Your task to perform on an android device: choose inbox layout in the gmail app Image 0: 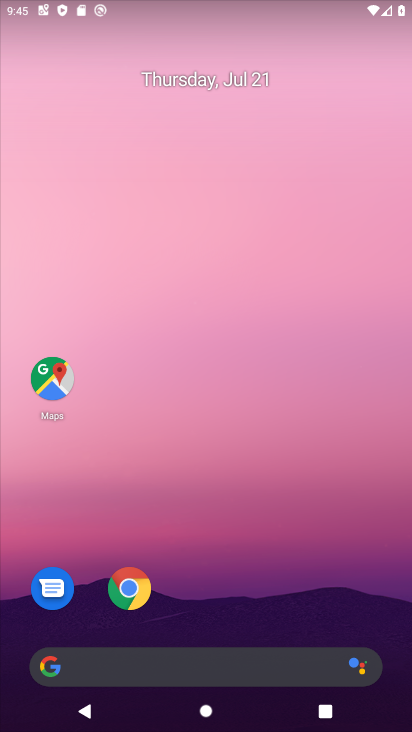
Step 0: drag from (397, 696) to (311, 133)
Your task to perform on an android device: choose inbox layout in the gmail app Image 1: 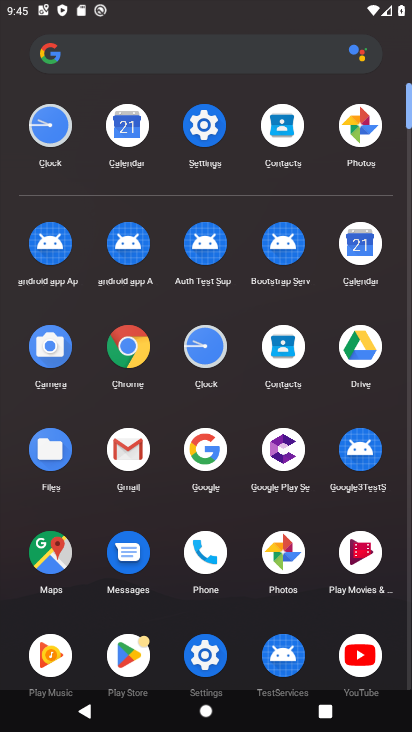
Step 1: click (137, 452)
Your task to perform on an android device: choose inbox layout in the gmail app Image 2: 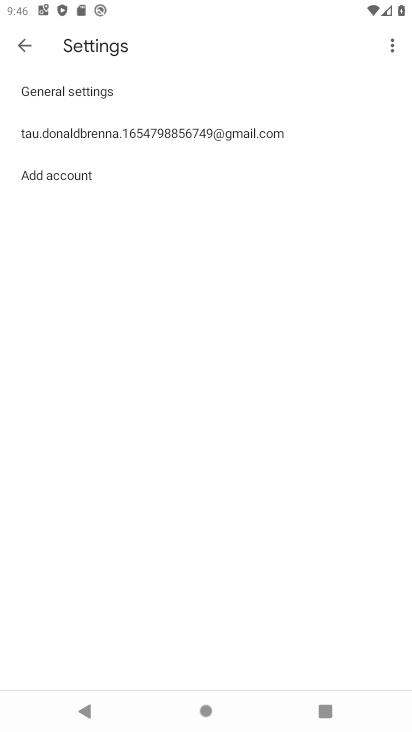
Step 2: click (139, 132)
Your task to perform on an android device: choose inbox layout in the gmail app Image 3: 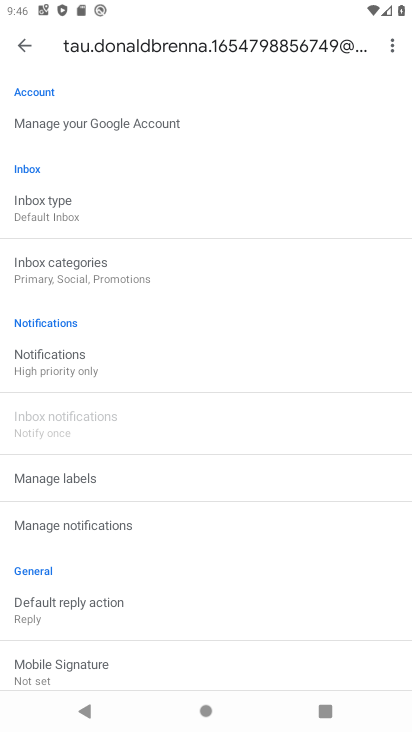
Step 3: click (41, 203)
Your task to perform on an android device: choose inbox layout in the gmail app Image 4: 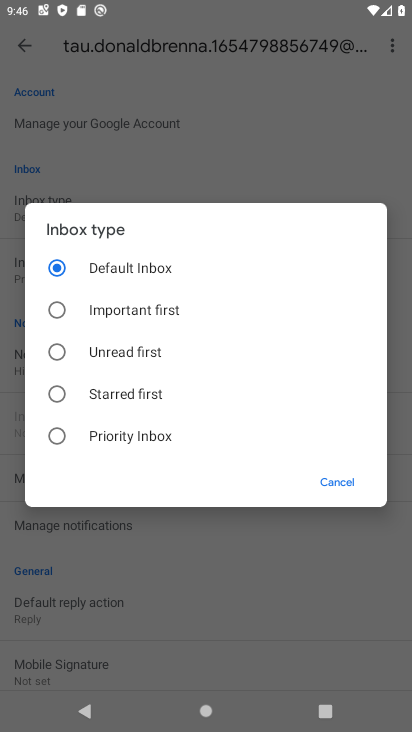
Step 4: click (60, 352)
Your task to perform on an android device: choose inbox layout in the gmail app Image 5: 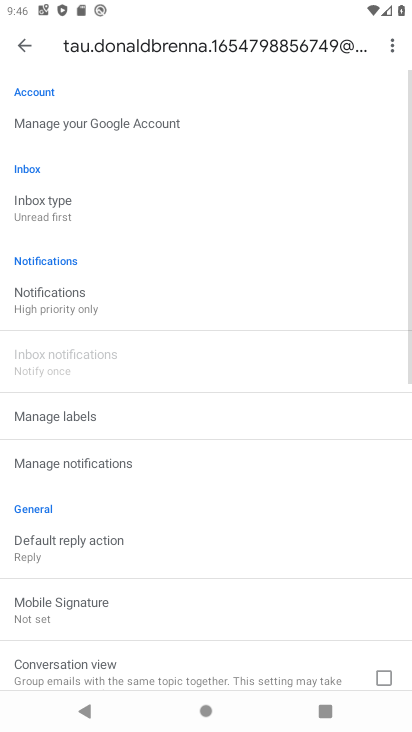
Step 5: task complete